Your task to perform on an android device: Open accessibility settings Image 0: 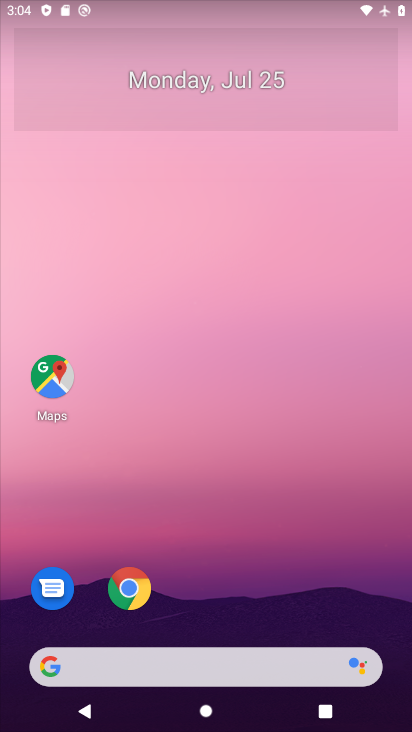
Step 0: drag from (225, 727) to (230, 185)
Your task to perform on an android device: Open accessibility settings Image 1: 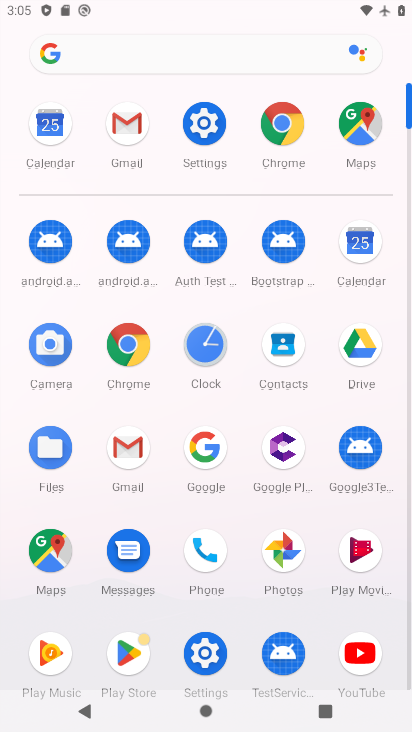
Step 1: click (207, 122)
Your task to perform on an android device: Open accessibility settings Image 2: 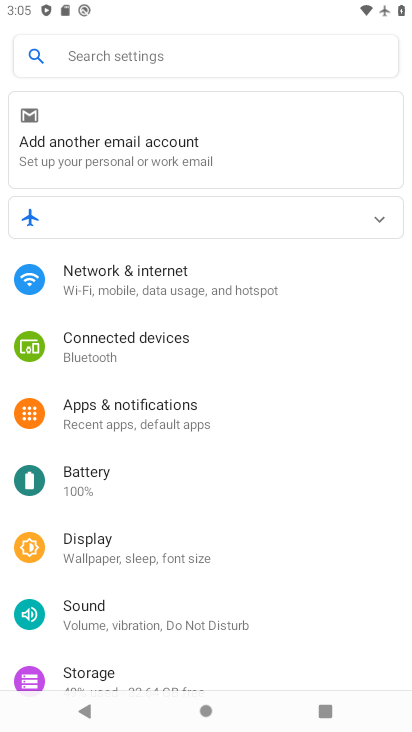
Step 2: drag from (142, 642) to (127, 288)
Your task to perform on an android device: Open accessibility settings Image 3: 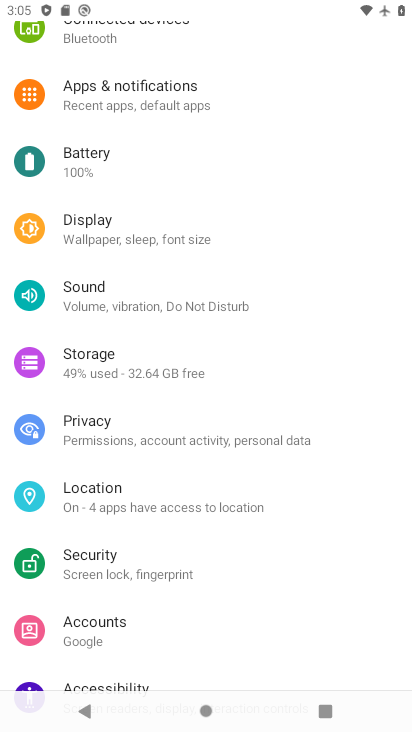
Step 3: drag from (138, 656) to (126, 261)
Your task to perform on an android device: Open accessibility settings Image 4: 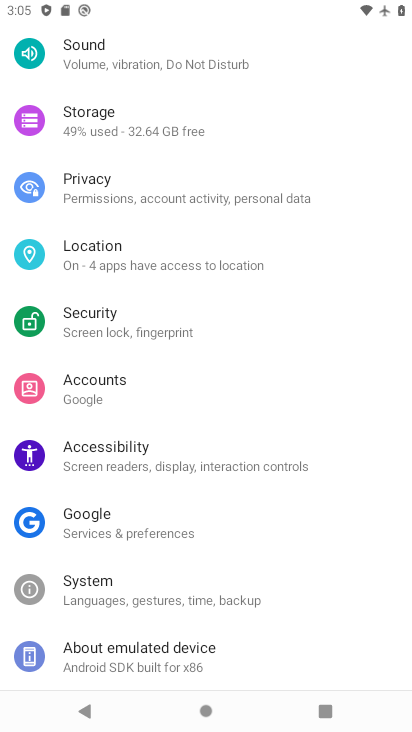
Step 4: click (105, 450)
Your task to perform on an android device: Open accessibility settings Image 5: 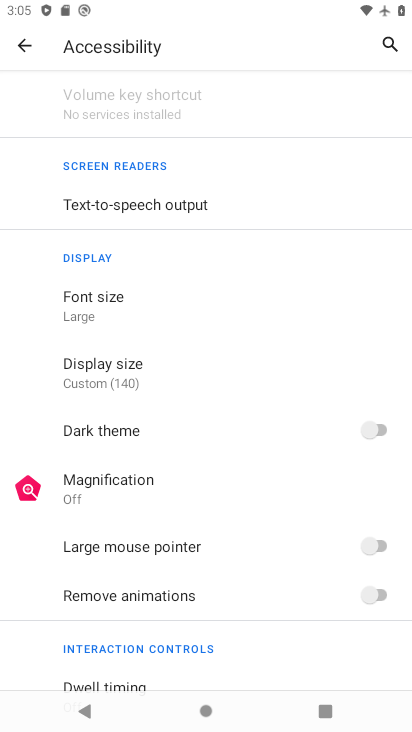
Step 5: task complete